Your task to perform on an android device: Open display settings Image 0: 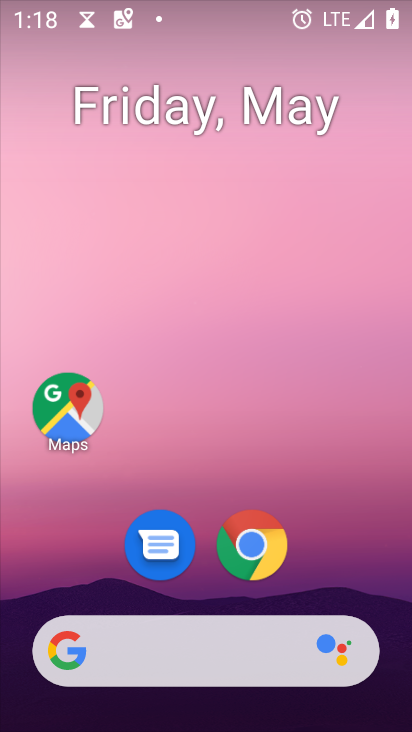
Step 0: drag from (360, 561) to (341, 284)
Your task to perform on an android device: Open display settings Image 1: 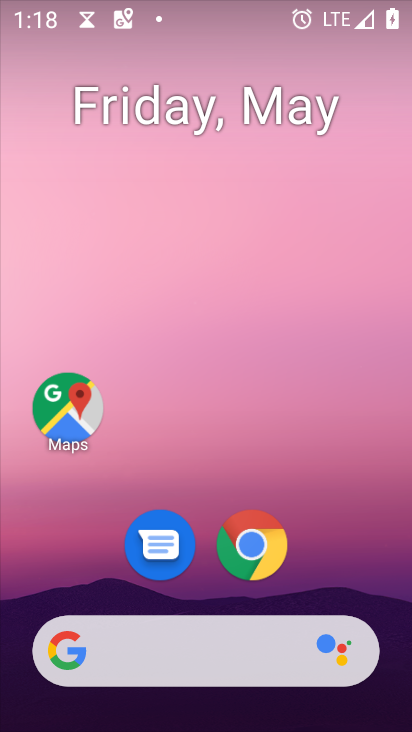
Step 1: drag from (313, 592) to (287, 219)
Your task to perform on an android device: Open display settings Image 2: 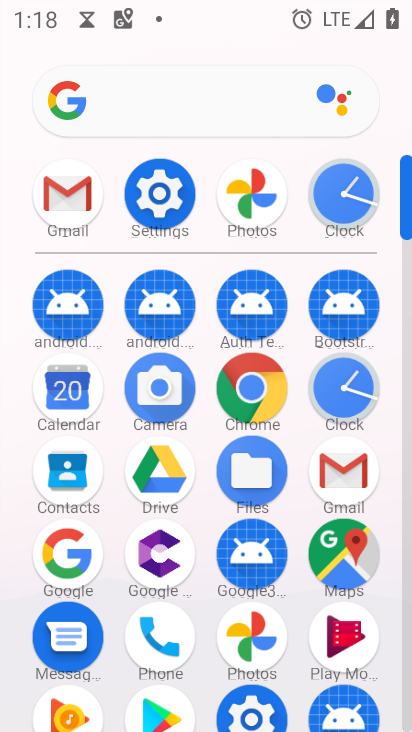
Step 2: click (175, 204)
Your task to perform on an android device: Open display settings Image 3: 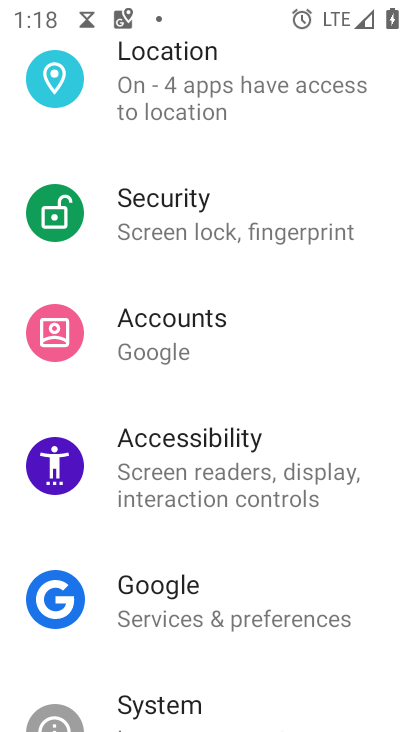
Step 3: drag from (348, 162) to (264, 559)
Your task to perform on an android device: Open display settings Image 4: 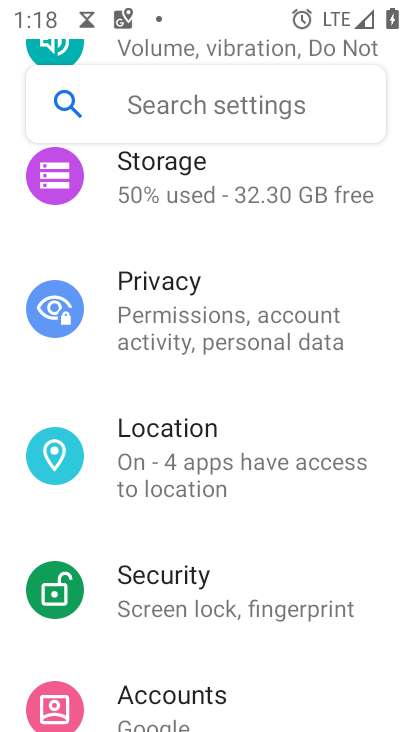
Step 4: drag from (317, 226) to (298, 562)
Your task to perform on an android device: Open display settings Image 5: 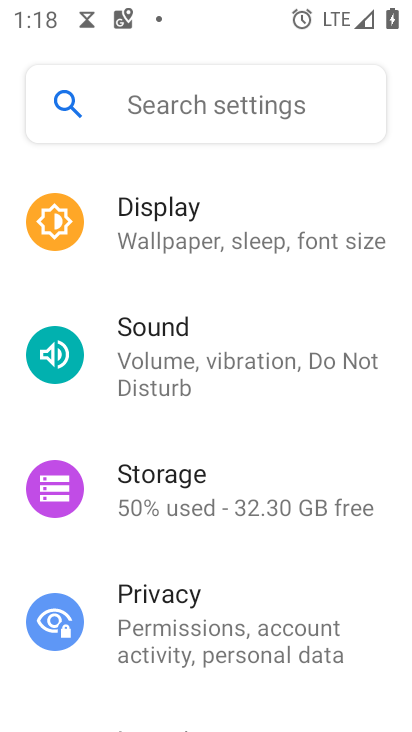
Step 5: click (251, 231)
Your task to perform on an android device: Open display settings Image 6: 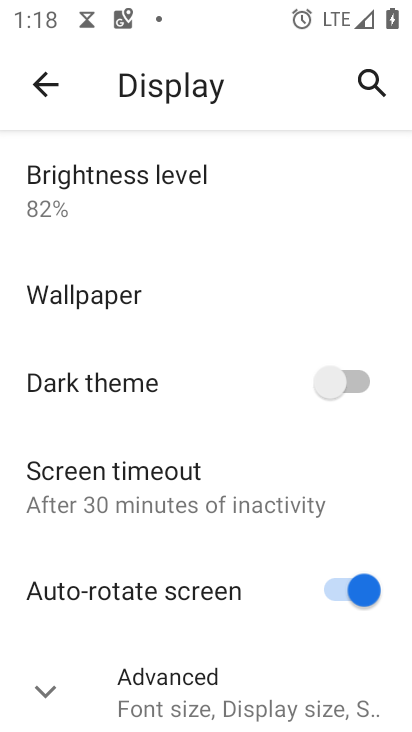
Step 6: task complete